Your task to perform on an android device: What's on my calendar today? Image 0: 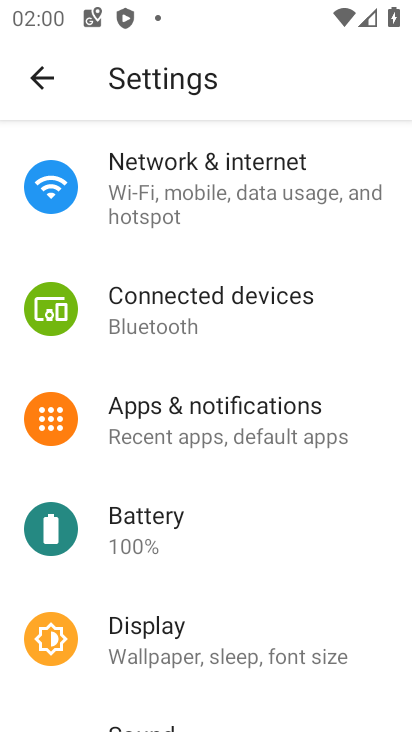
Step 0: press home button
Your task to perform on an android device: What's on my calendar today? Image 1: 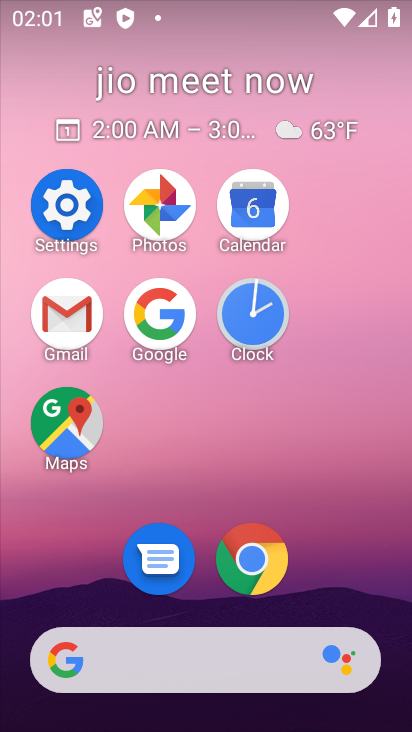
Step 1: click (243, 208)
Your task to perform on an android device: What's on my calendar today? Image 2: 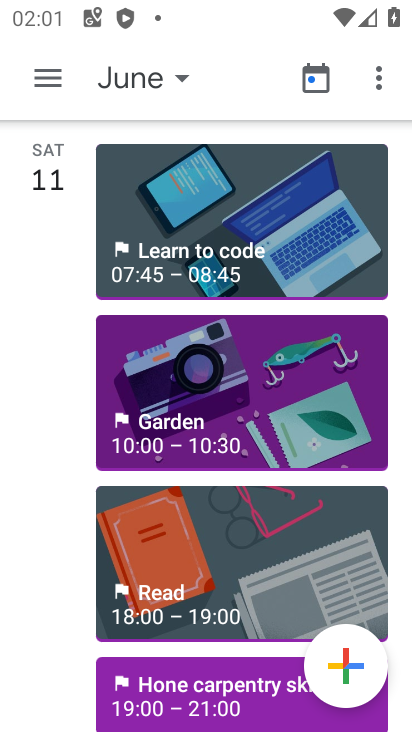
Step 2: click (167, 80)
Your task to perform on an android device: What's on my calendar today? Image 3: 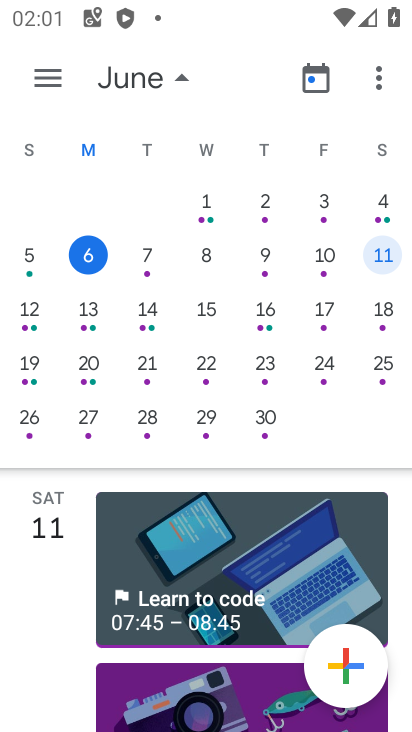
Step 3: click (94, 254)
Your task to perform on an android device: What's on my calendar today? Image 4: 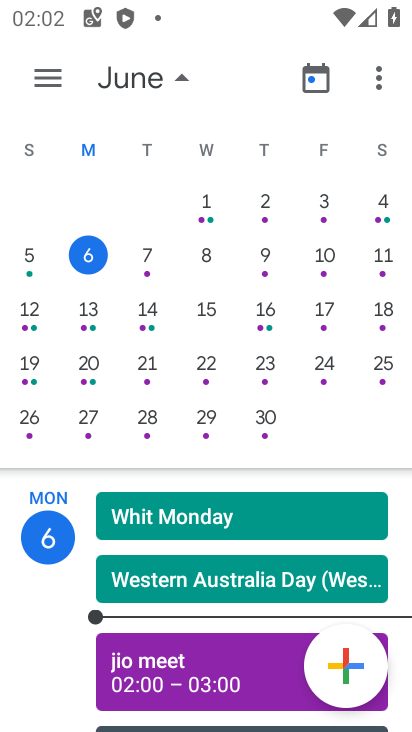
Step 4: click (31, 538)
Your task to perform on an android device: What's on my calendar today? Image 5: 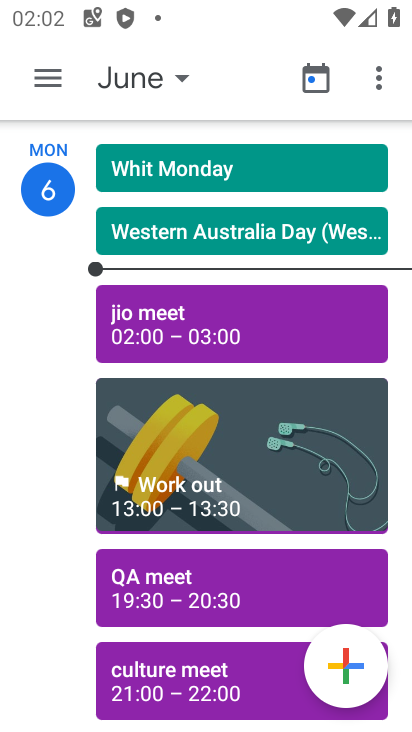
Step 5: task complete